Your task to perform on an android device: Go to Wikipedia Image 0: 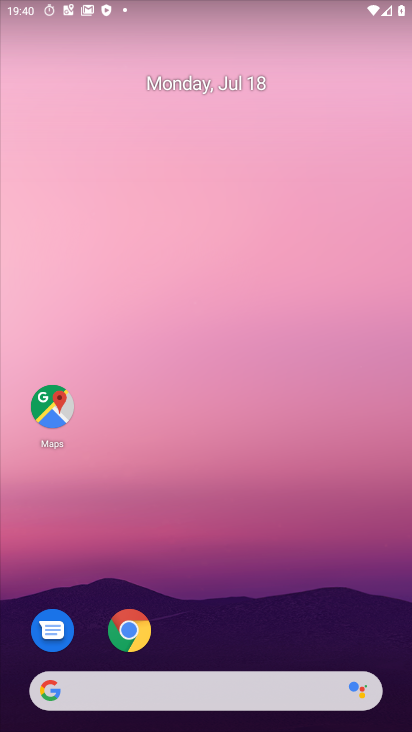
Step 0: drag from (201, 539) to (135, 127)
Your task to perform on an android device: Go to Wikipedia Image 1: 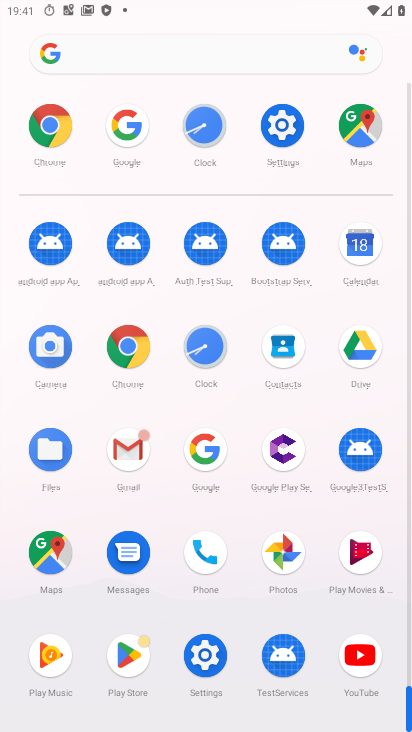
Step 1: click (46, 120)
Your task to perform on an android device: Go to Wikipedia Image 2: 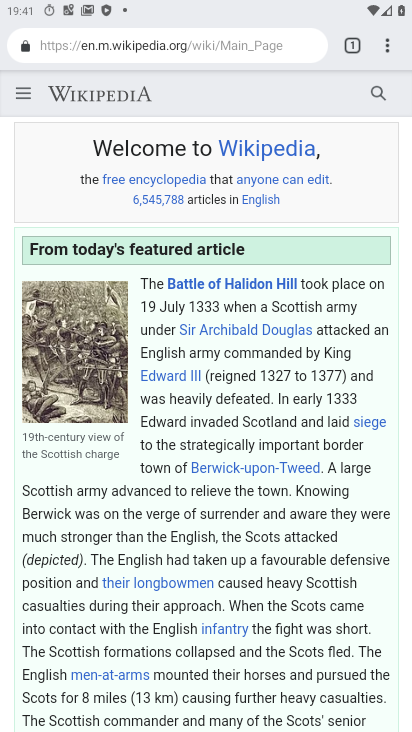
Step 2: task complete